Your task to perform on an android device: Open Google Image 0: 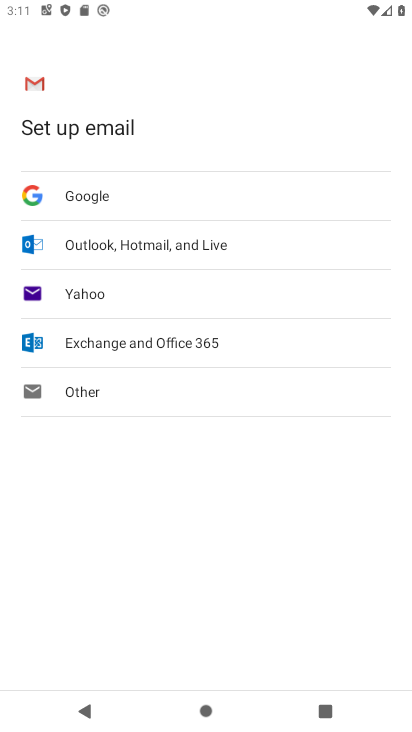
Step 0: press home button
Your task to perform on an android device: Open Google Image 1: 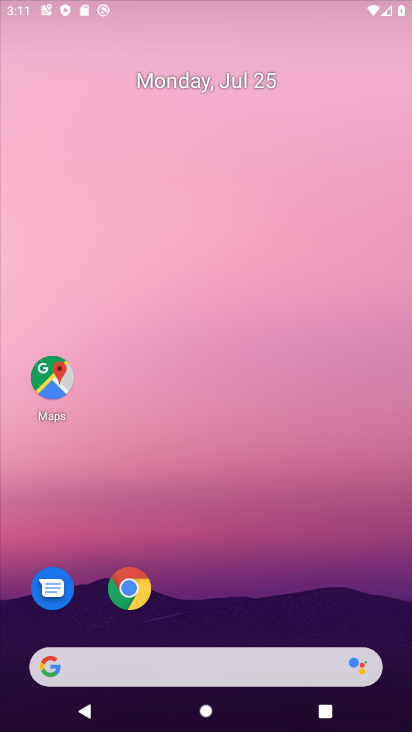
Step 1: drag from (332, 597) to (273, 46)
Your task to perform on an android device: Open Google Image 2: 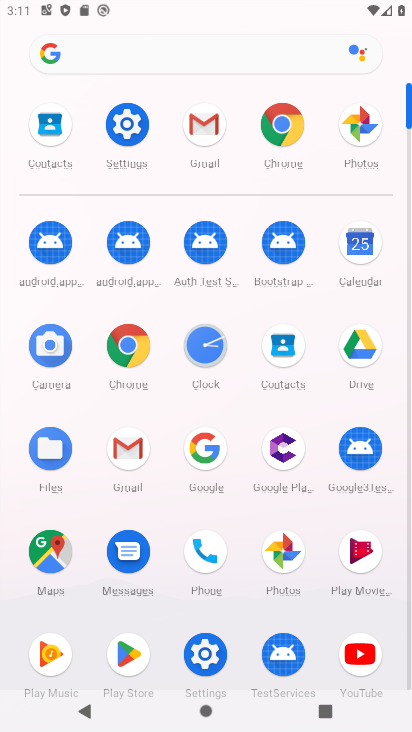
Step 2: click (202, 450)
Your task to perform on an android device: Open Google Image 3: 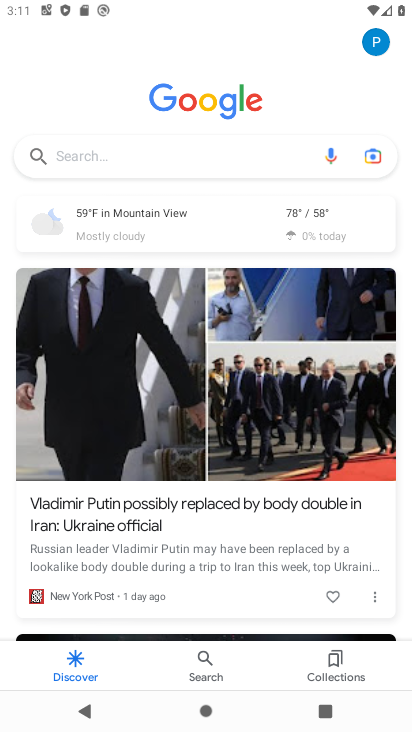
Step 3: task complete